Your task to perform on an android device: Check out the new ikea catalog. Image 0: 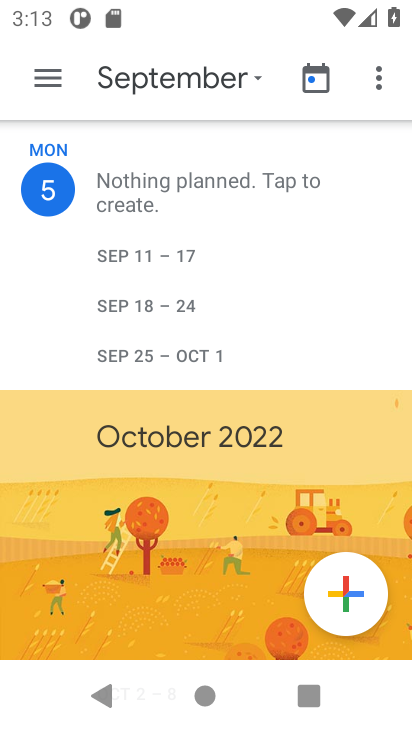
Step 0: press back button
Your task to perform on an android device: Check out the new ikea catalog. Image 1: 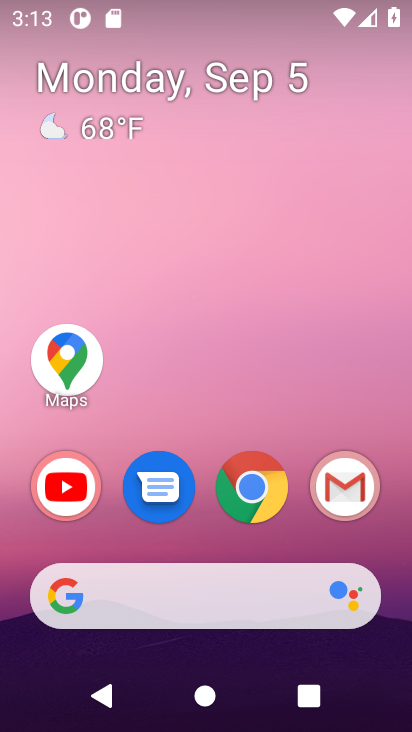
Step 1: click (265, 473)
Your task to perform on an android device: Check out the new ikea catalog. Image 2: 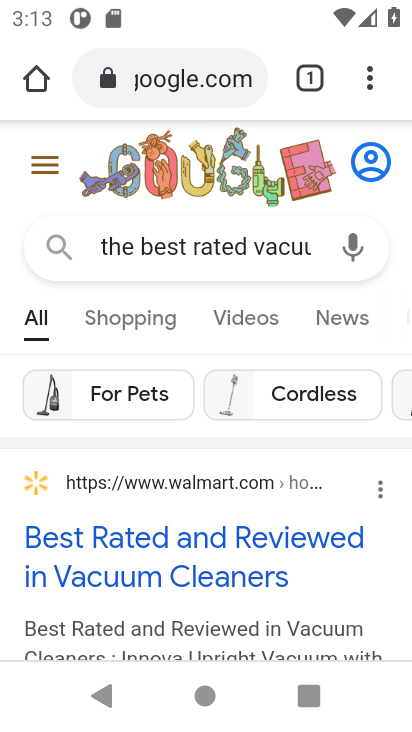
Step 2: click (157, 66)
Your task to perform on an android device: Check out the new ikea catalog. Image 3: 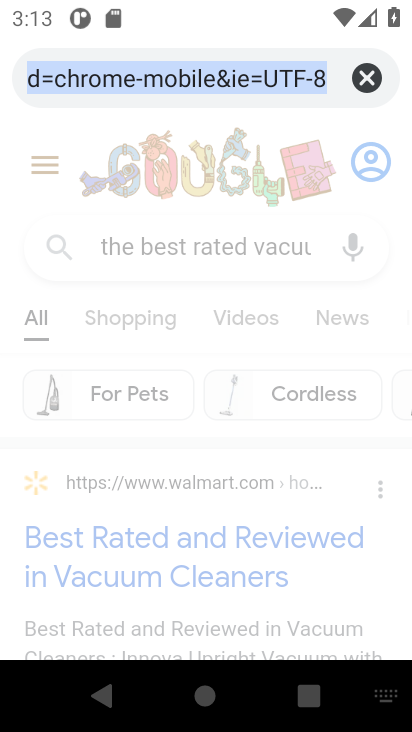
Step 3: click (355, 78)
Your task to perform on an android device: Check out the new ikea catalog. Image 4: 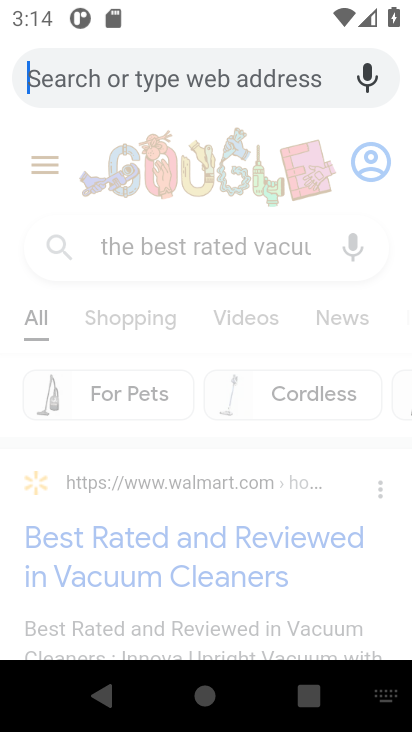
Step 4: type "the new ikea catalog."
Your task to perform on an android device: Check out the new ikea catalog. Image 5: 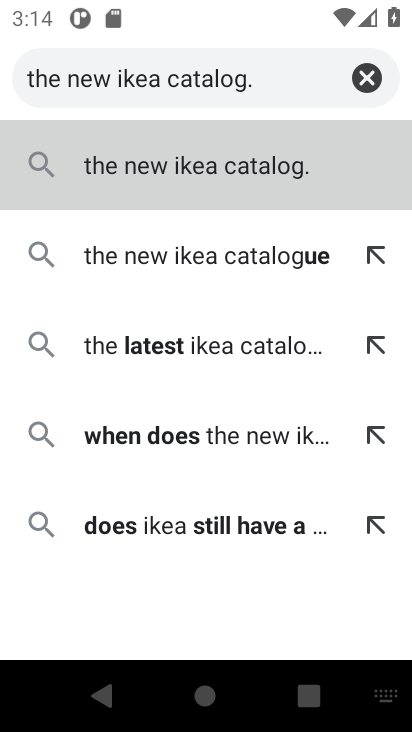
Step 5: click (221, 194)
Your task to perform on an android device: Check out the new ikea catalog. Image 6: 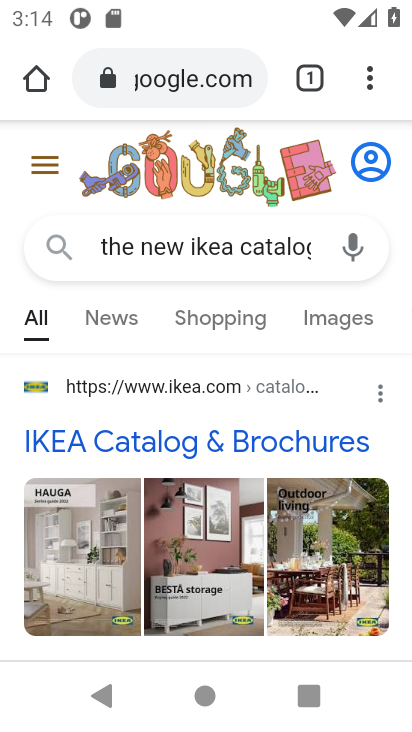
Step 6: task complete